Your task to perform on an android device: Open Wikipedia Image 0: 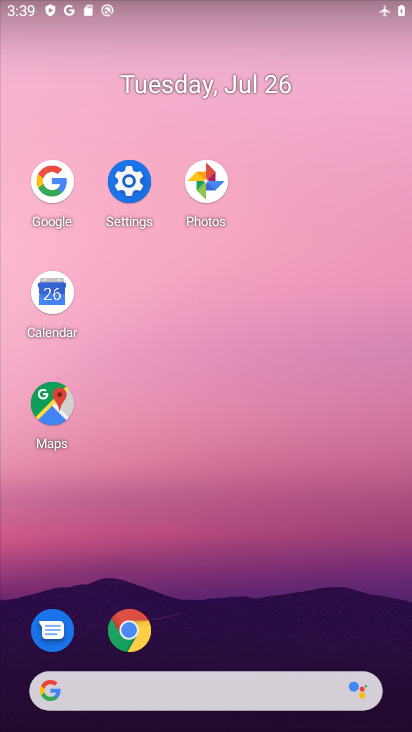
Step 0: click (120, 627)
Your task to perform on an android device: Open Wikipedia Image 1: 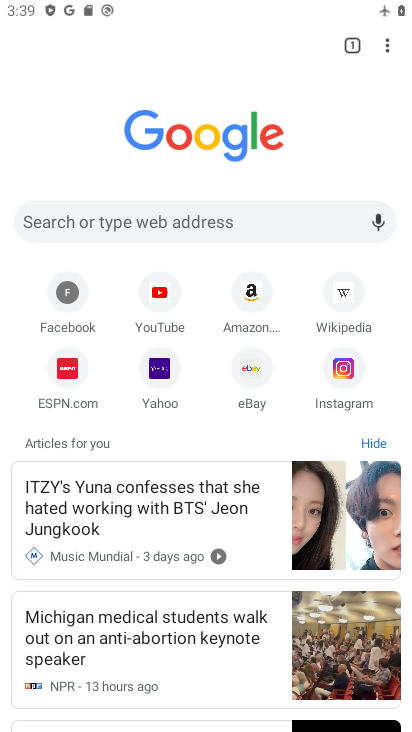
Step 1: click (345, 52)
Your task to perform on an android device: Open Wikipedia Image 2: 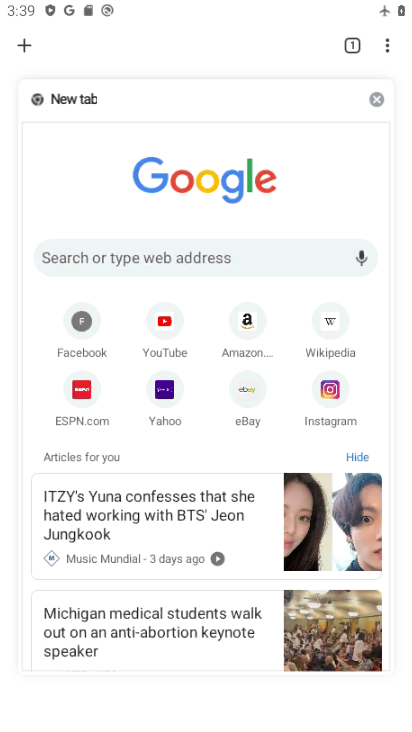
Step 2: click (29, 54)
Your task to perform on an android device: Open Wikipedia Image 3: 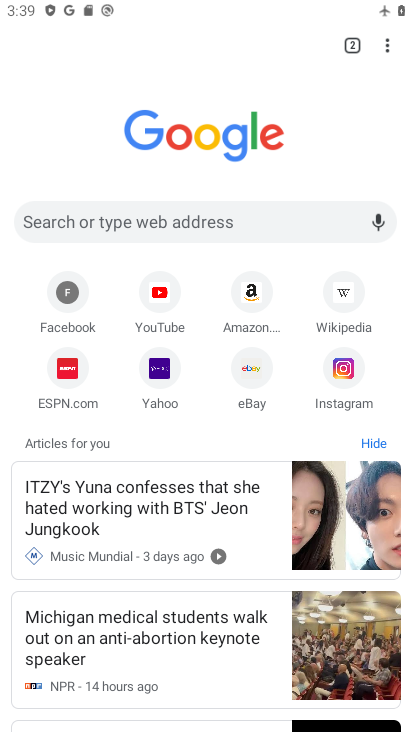
Step 3: click (341, 288)
Your task to perform on an android device: Open Wikipedia Image 4: 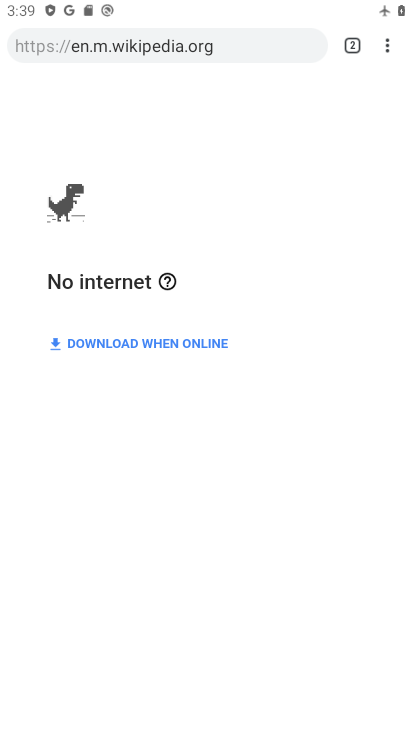
Step 4: task complete